Your task to perform on an android device: choose inbox layout in the gmail app Image 0: 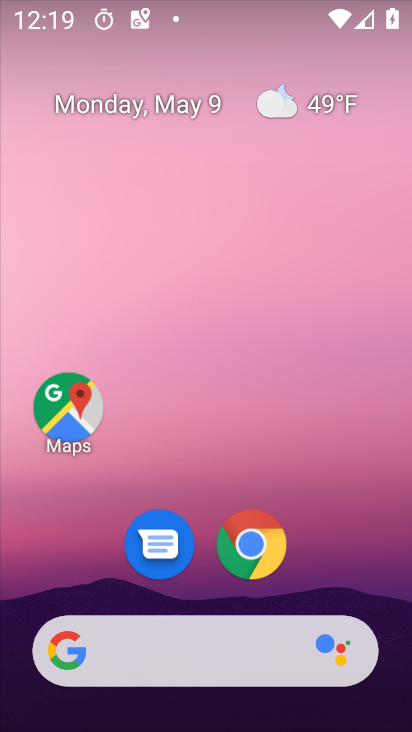
Step 0: drag from (340, 609) to (381, 69)
Your task to perform on an android device: choose inbox layout in the gmail app Image 1: 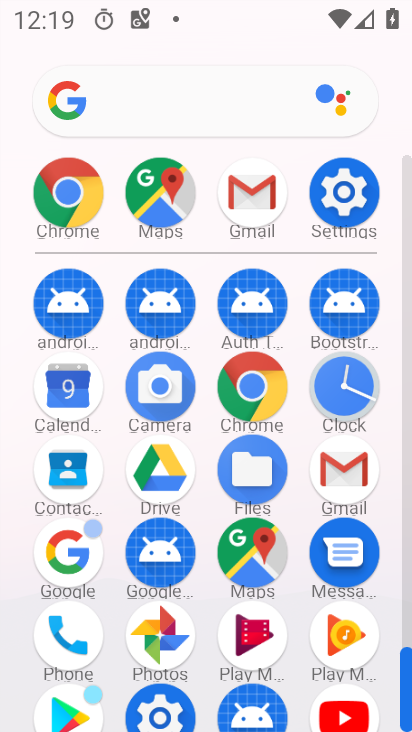
Step 1: click (338, 474)
Your task to perform on an android device: choose inbox layout in the gmail app Image 2: 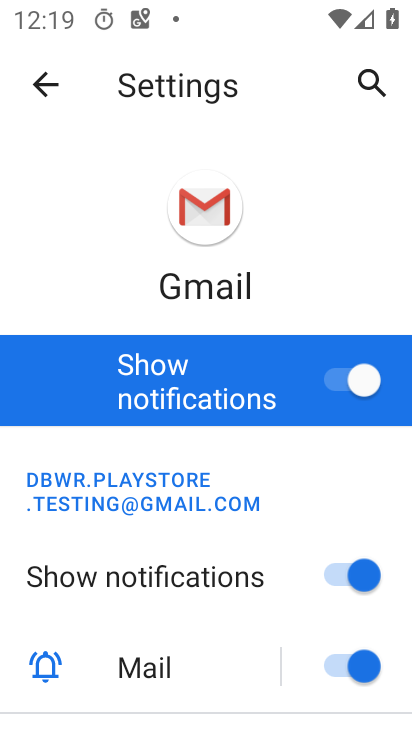
Step 2: press back button
Your task to perform on an android device: choose inbox layout in the gmail app Image 3: 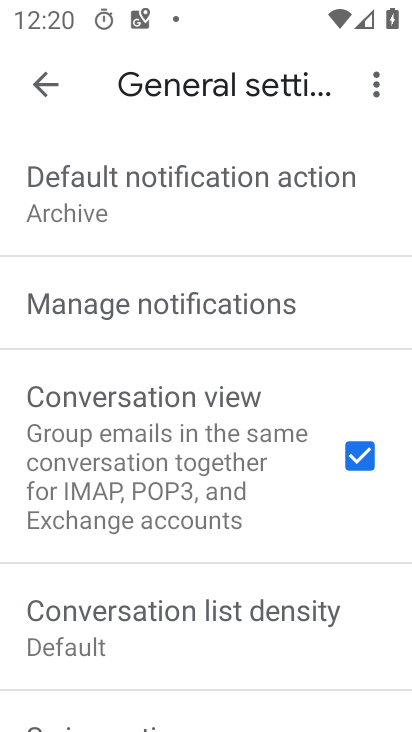
Step 3: press back button
Your task to perform on an android device: choose inbox layout in the gmail app Image 4: 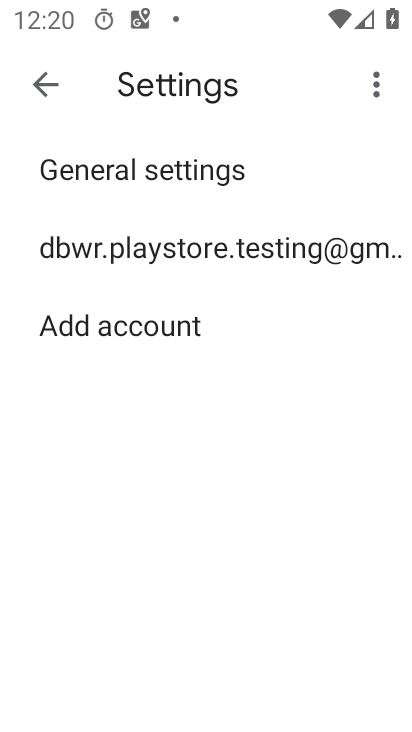
Step 4: click (358, 260)
Your task to perform on an android device: choose inbox layout in the gmail app Image 5: 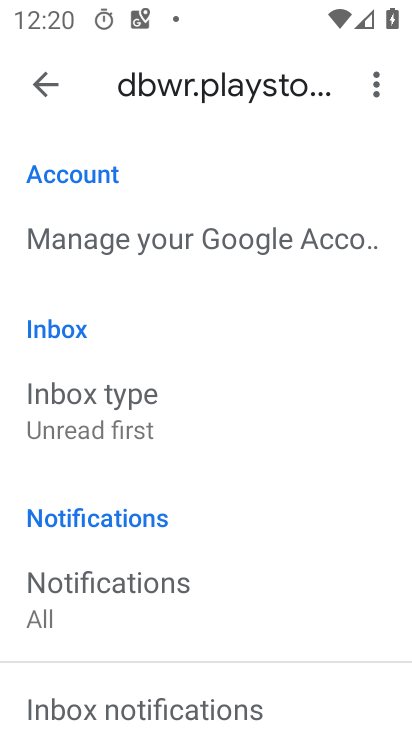
Step 5: click (151, 432)
Your task to perform on an android device: choose inbox layout in the gmail app Image 6: 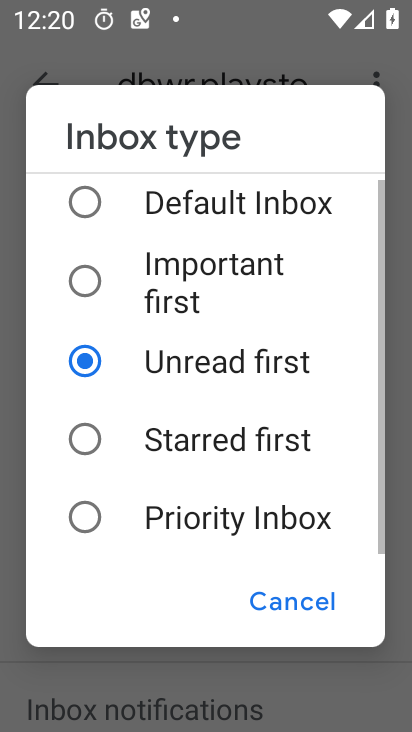
Step 6: click (104, 274)
Your task to perform on an android device: choose inbox layout in the gmail app Image 7: 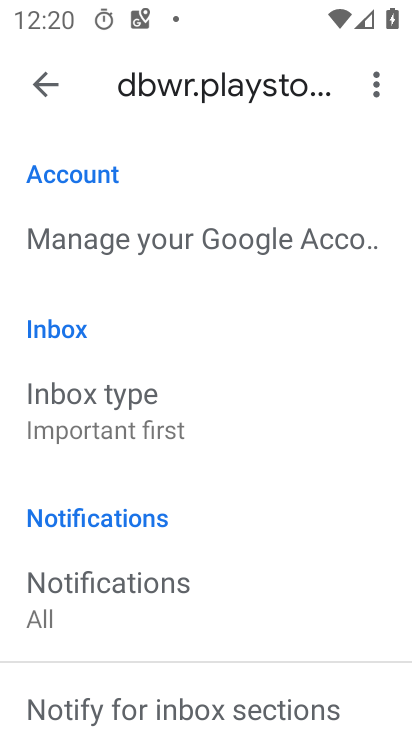
Step 7: task complete